Your task to perform on an android device: turn off notifications in google photos Image 0: 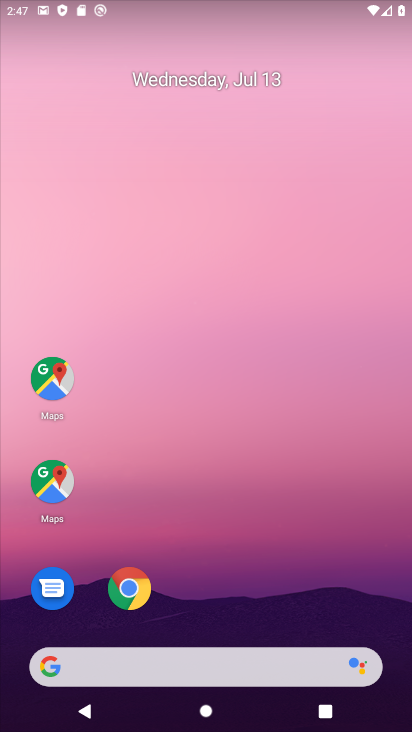
Step 0: drag from (285, 530) to (284, 209)
Your task to perform on an android device: turn off notifications in google photos Image 1: 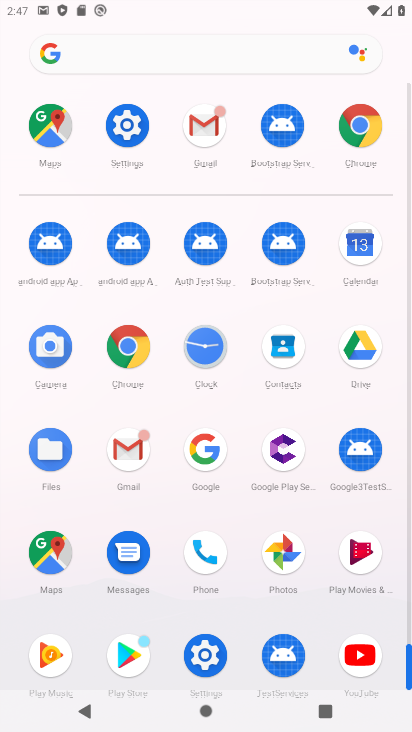
Step 1: click (289, 552)
Your task to perform on an android device: turn off notifications in google photos Image 2: 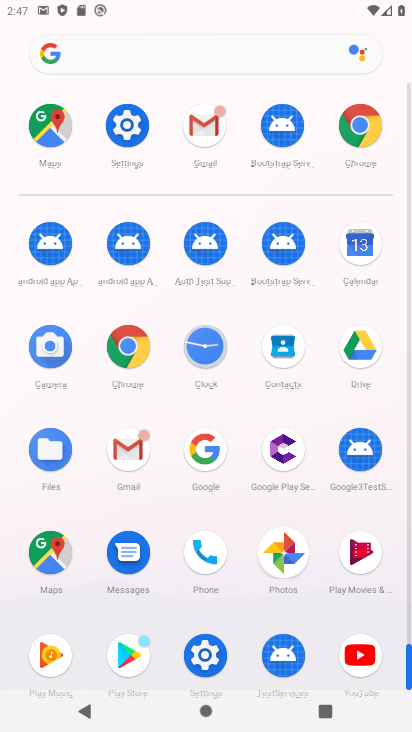
Step 2: click (288, 551)
Your task to perform on an android device: turn off notifications in google photos Image 3: 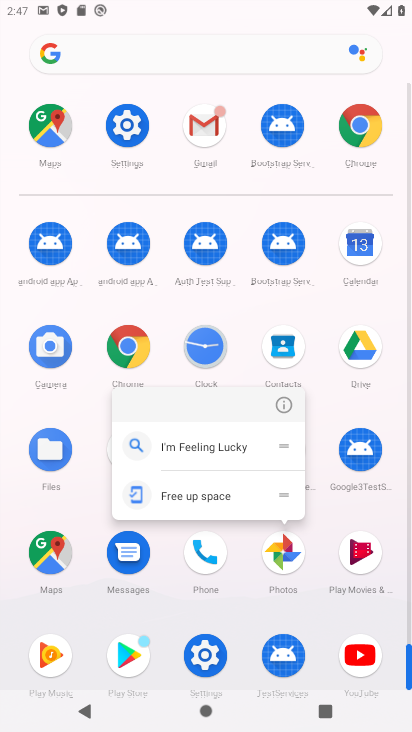
Step 3: click (286, 548)
Your task to perform on an android device: turn off notifications in google photos Image 4: 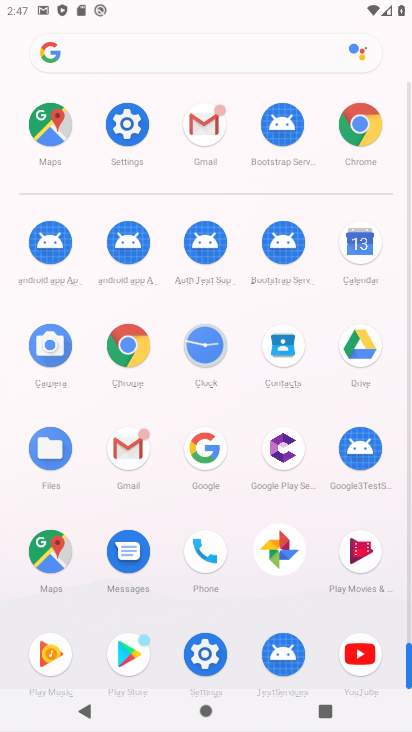
Step 4: click (286, 544)
Your task to perform on an android device: turn off notifications in google photos Image 5: 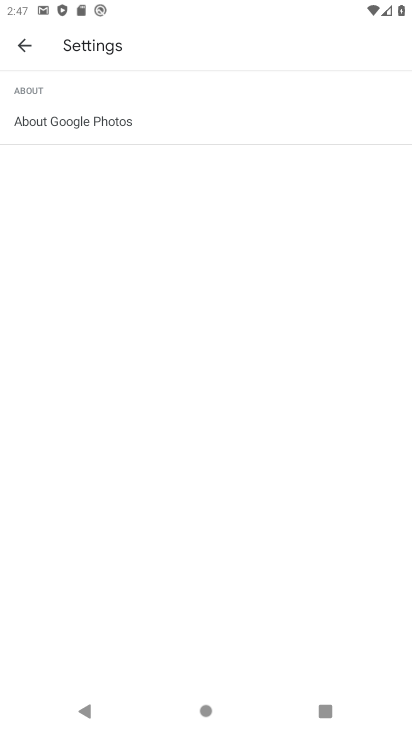
Step 5: click (33, 48)
Your task to perform on an android device: turn off notifications in google photos Image 6: 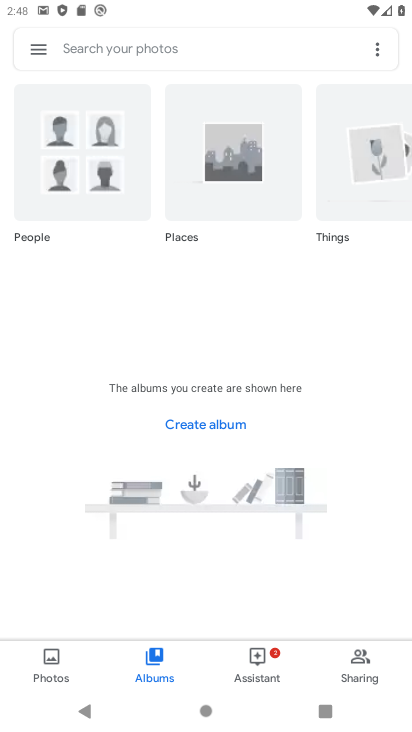
Step 6: click (36, 57)
Your task to perform on an android device: turn off notifications in google photos Image 7: 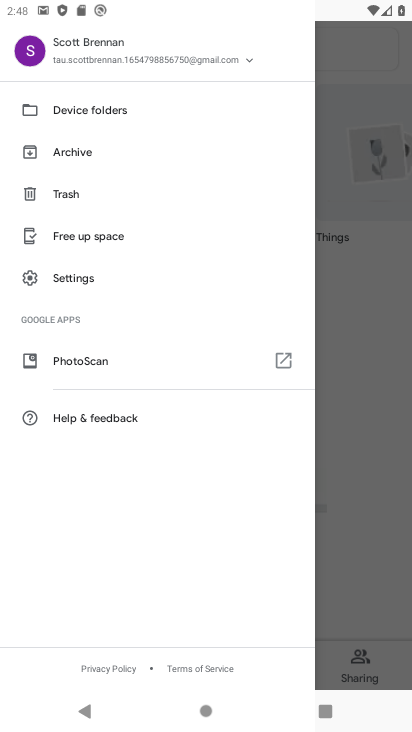
Step 7: click (66, 277)
Your task to perform on an android device: turn off notifications in google photos Image 8: 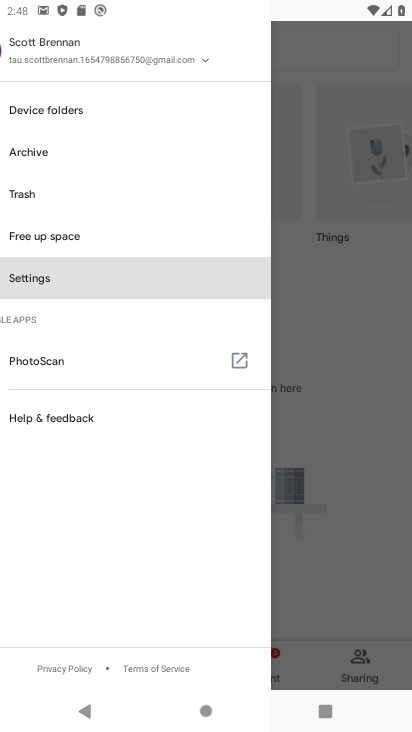
Step 8: click (67, 276)
Your task to perform on an android device: turn off notifications in google photos Image 9: 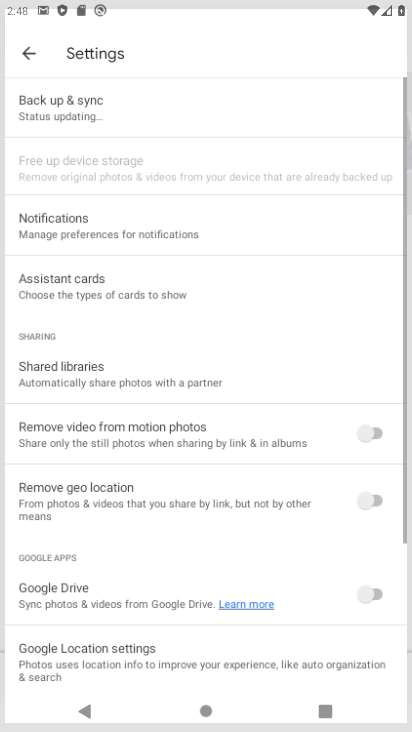
Step 9: click (68, 270)
Your task to perform on an android device: turn off notifications in google photos Image 10: 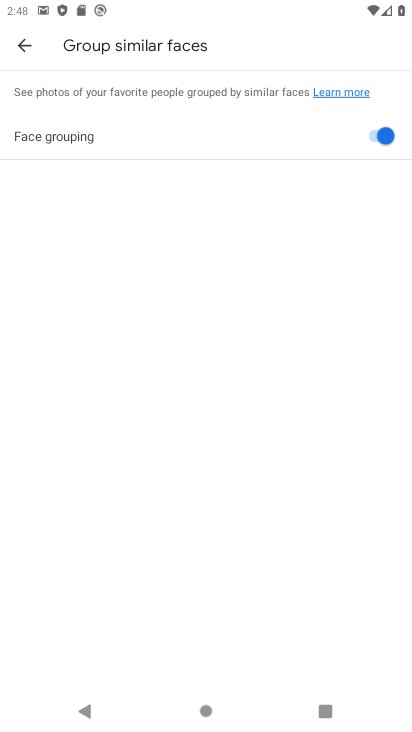
Step 10: click (20, 38)
Your task to perform on an android device: turn off notifications in google photos Image 11: 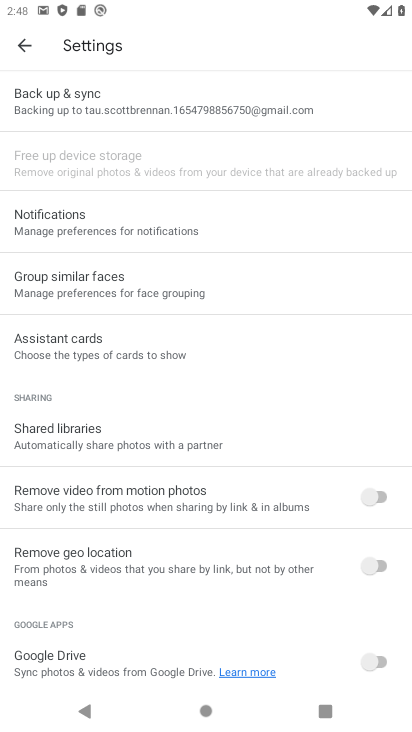
Step 11: click (49, 230)
Your task to perform on an android device: turn off notifications in google photos Image 12: 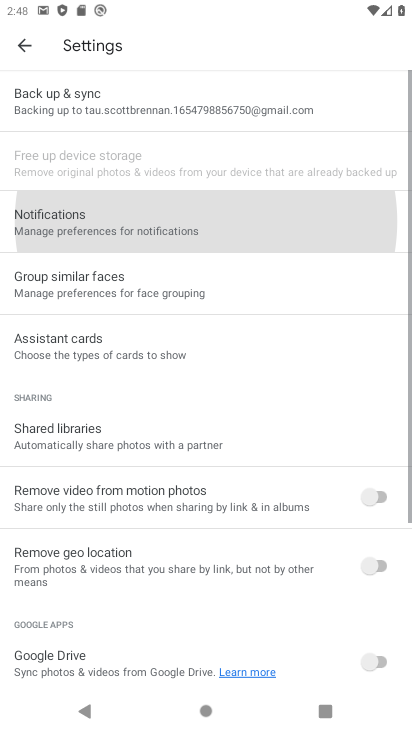
Step 12: click (56, 231)
Your task to perform on an android device: turn off notifications in google photos Image 13: 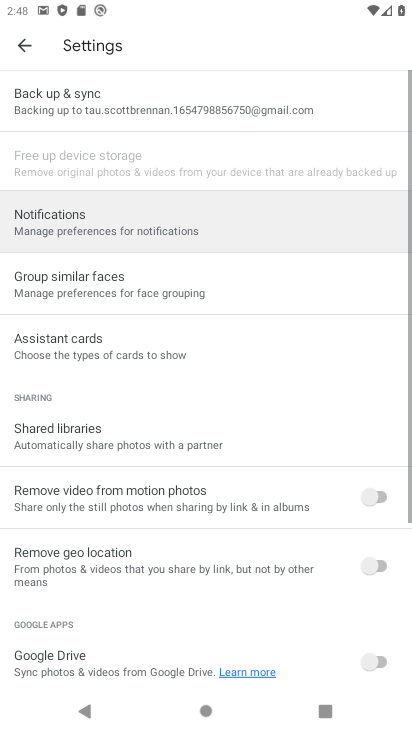
Step 13: click (60, 231)
Your task to perform on an android device: turn off notifications in google photos Image 14: 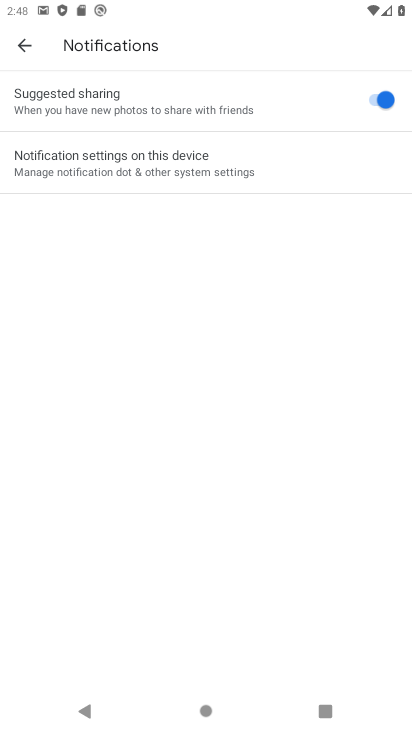
Step 14: click (80, 166)
Your task to perform on an android device: turn off notifications in google photos Image 15: 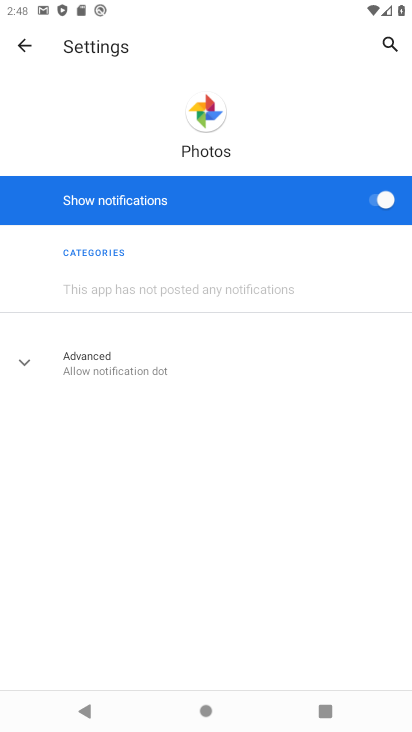
Step 15: click (381, 195)
Your task to perform on an android device: turn off notifications in google photos Image 16: 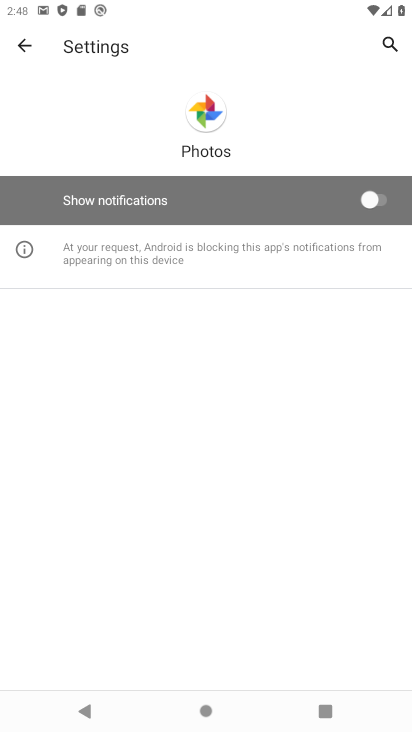
Step 16: task complete